Your task to perform on an android device: Go to privacy settings Image 0: 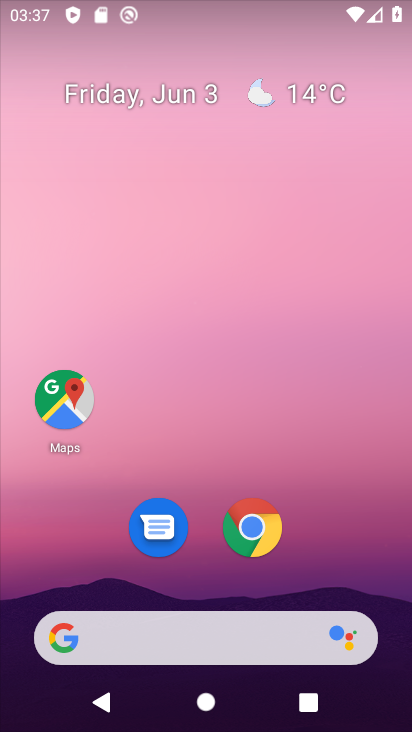
Step 0: drag from (347, 554) to (239, 17)
Your task to perform on an android device: Go to privacy settings Image 1: 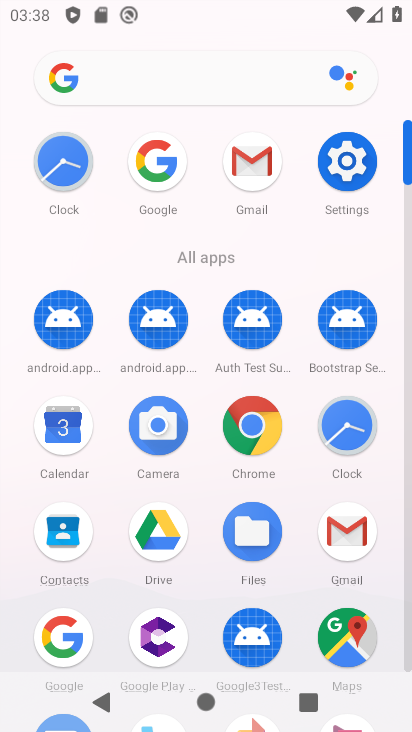
Step 1: click (349, 163)
Your task to perform on an android device: Go to privacy settings Image 2: 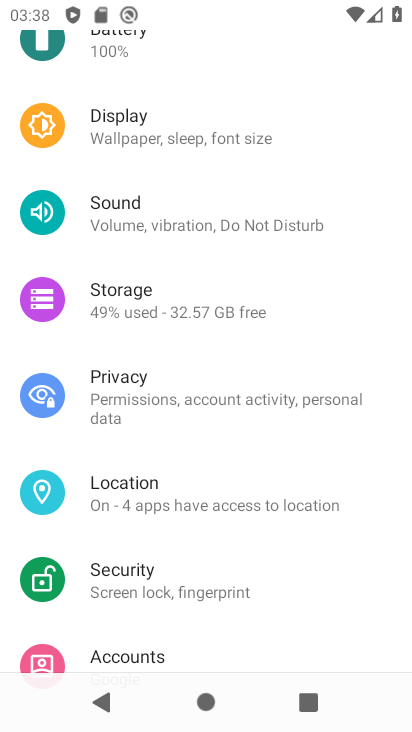
Step 2: click (219, 397)
Your task to perform on an android device: Go to privacy settings Image 3: 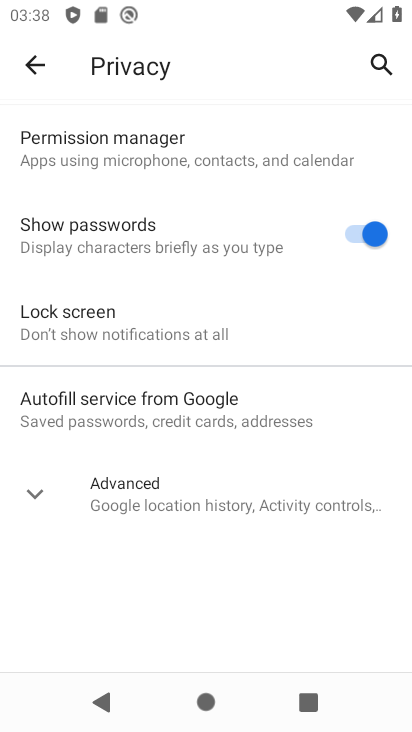
Step 3: task complete